Your task to perform on an android device: Open Android settings Image 0: 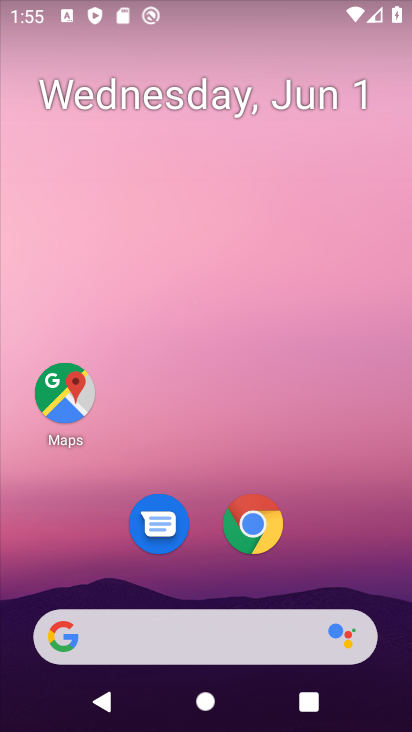
Step 0: drag from (310, 523) to (329, 114)
Your task to perform on an android device: Open Android settings Image 1: 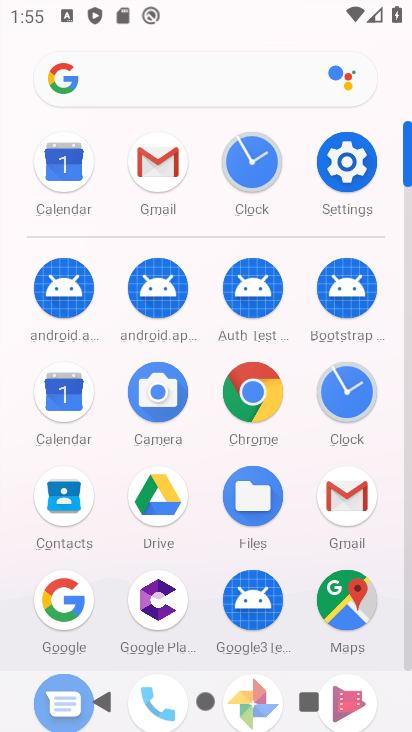
Step 1: click (345, 162)
Your task to perform on an android device: Open Android settings Image 2: 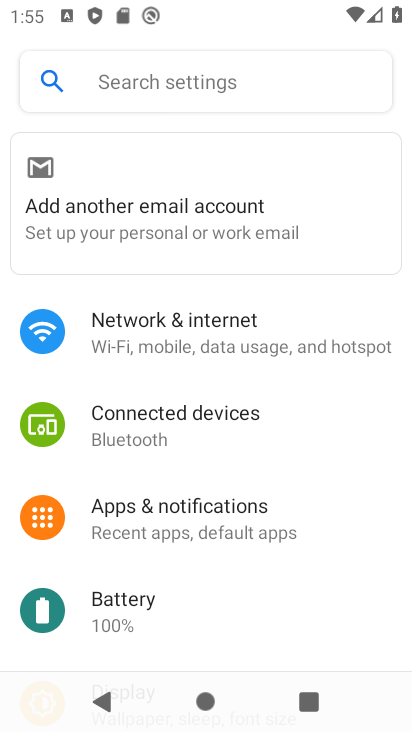
Step 2: drag from (251, 580) to (284, 53)
Your task to perform on an android device: Open Android settings Image 3: 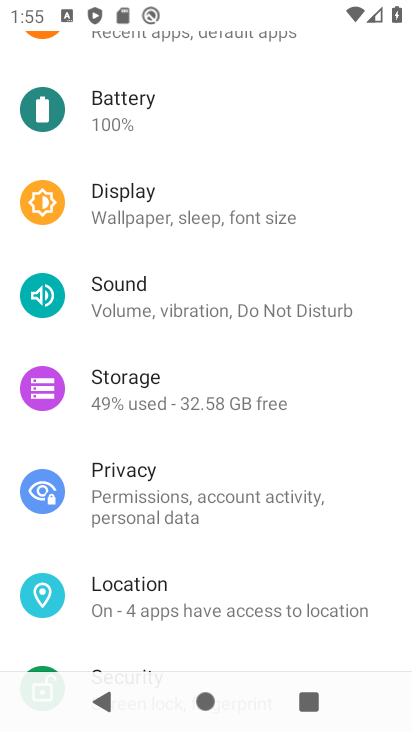
Step 3: drag from (239, 539) to (299, 0)
Your task to perform on an android device: Open Android settings Image 4: 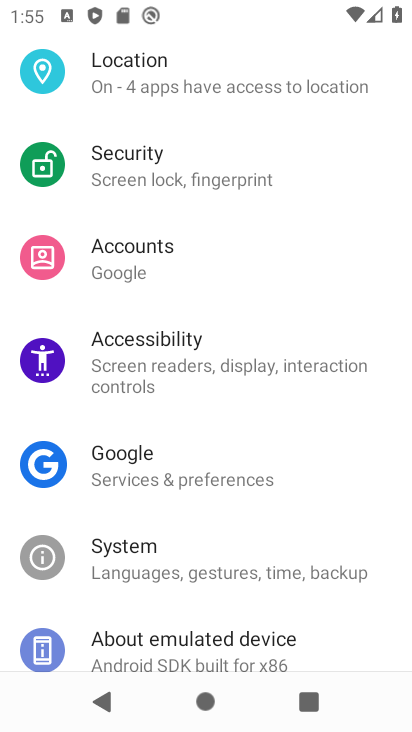
Step 4: click (222, 645)
Your task to perform on an android device: Open Android settings Image 5: 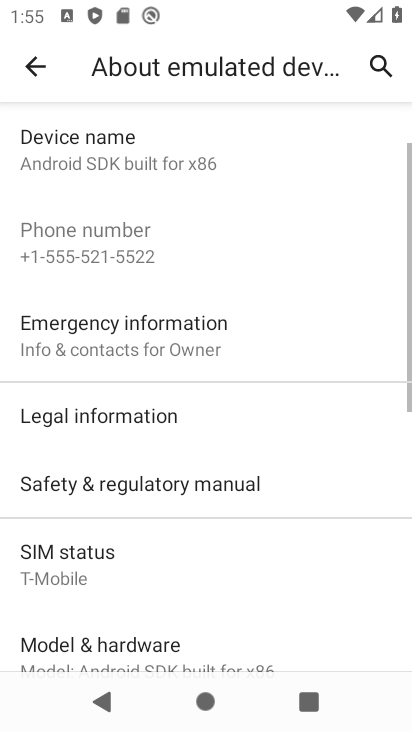
Step 5: task complete